Your task to perform on an android device: set the stopwatch Image 0: 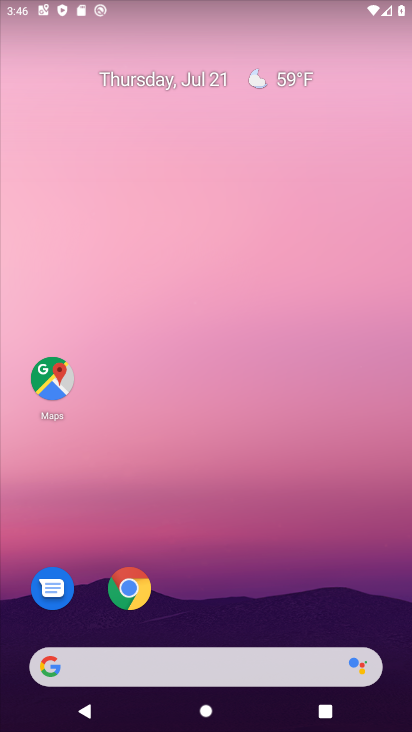
Step 0: drag from (210, 624) to (228, 155)
Your task to perform on an android device: set the stopwatch Image 1: 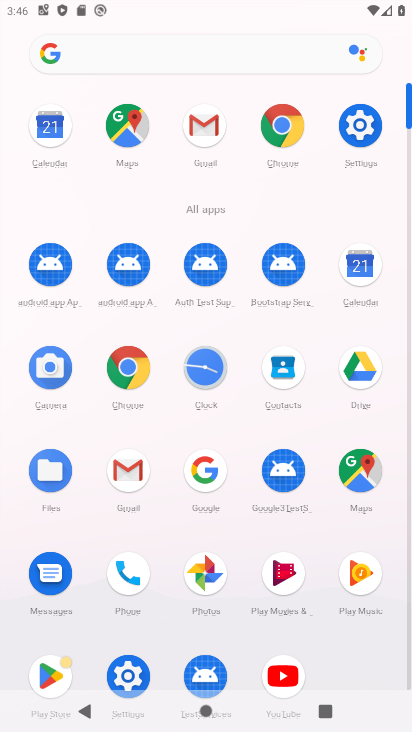
Step 1: click (210, 379)
Your task to perform on an android device: set the stopwatch Image 2: 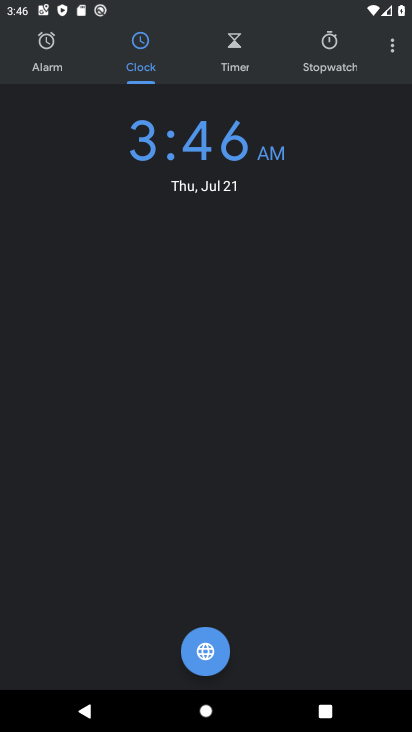
Step 2: click (317, 60)
Your task to perform on an android device: set the stopwatch Image 3: 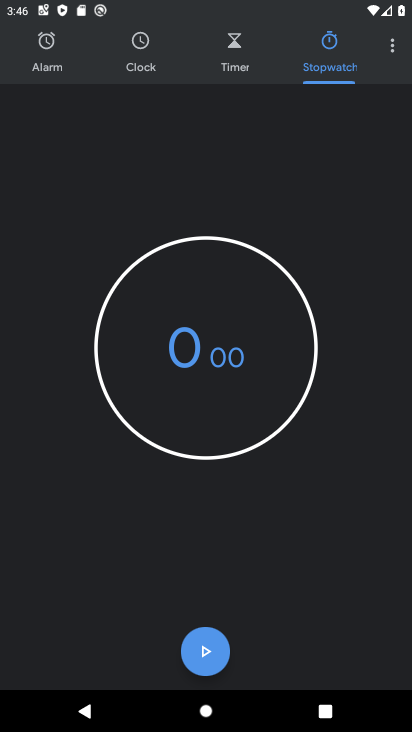
Step 3: click (212, 648)
Your task to perform on an android device: set the stopwatch Image 4: 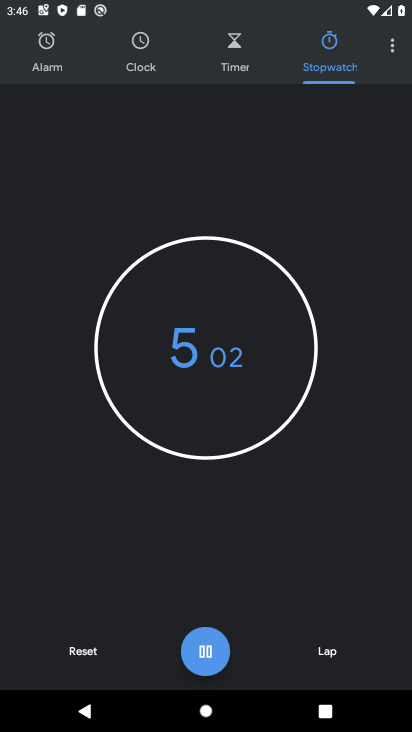
Step 4: task complete